Your task to perform on an android device: Go to Android settings Image 0: 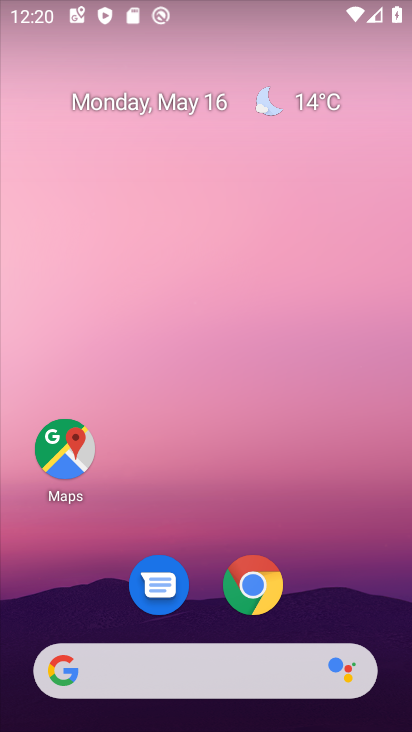
Step 0: drag from (263, 516) to (248, 39)
Your task to perform on an android device: Go to Android settings Image 1: 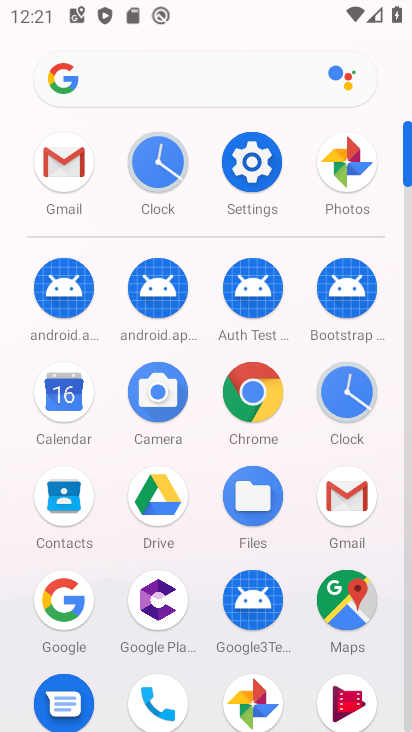
Step 1: drag from (297, 533) to (297, 256)
Your task to perform on an android device: Go to Android settings Image 2: 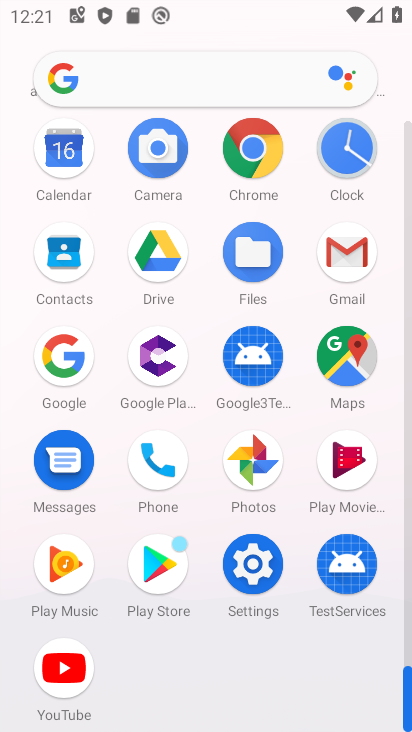
Step 2: click (247, 554)
Your task to perform on an android device: Go to Android settings Image 3: 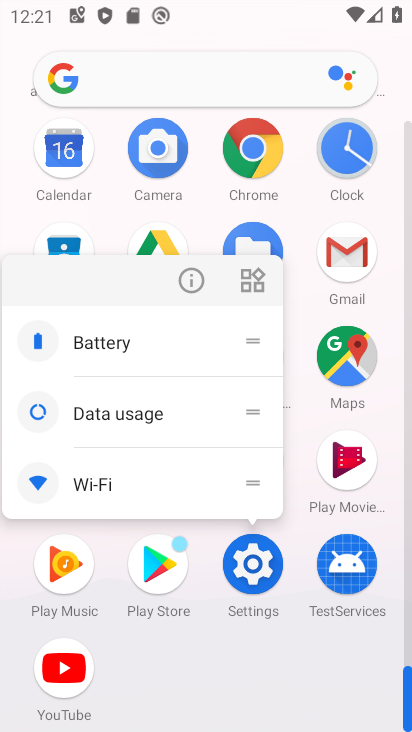
Step 3: click (247, 548)
Your task to perform on an android device: Go to Android settings Image 4: 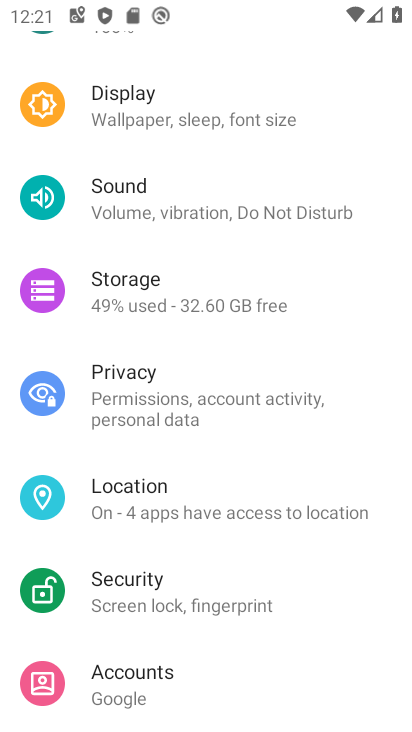
Step 4: drag from (243, 619) to (207, 146)
Your task to perform on an android device: Go to Android settings Image 5: 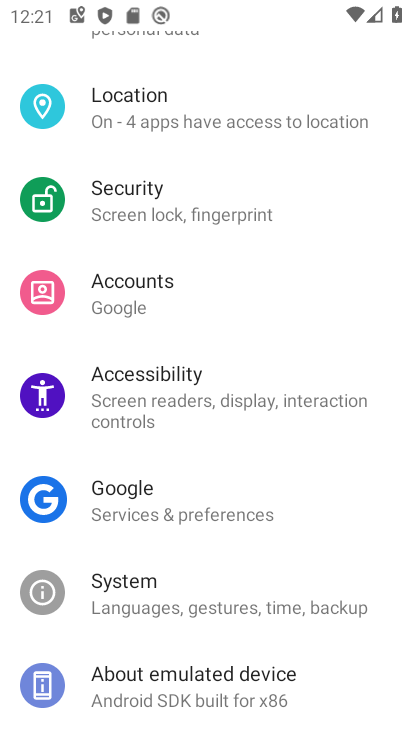
Step 5: click (224, 688)
Your task to perform on an android device: Go to Android settings Image 6: 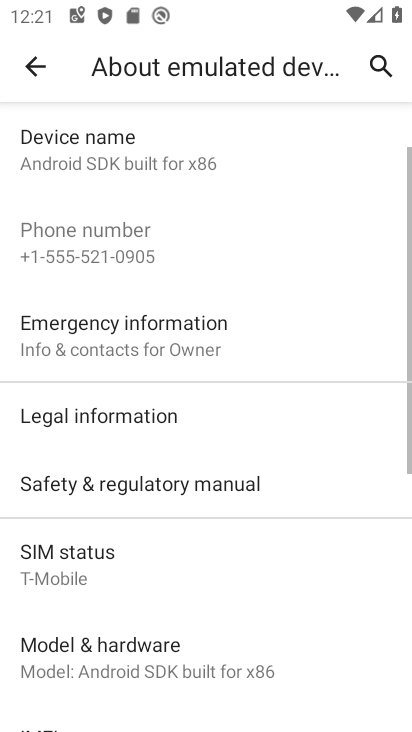
Step 6: task complete